Your task to perform on an android device: open a new tab in the chrome app Image 0: 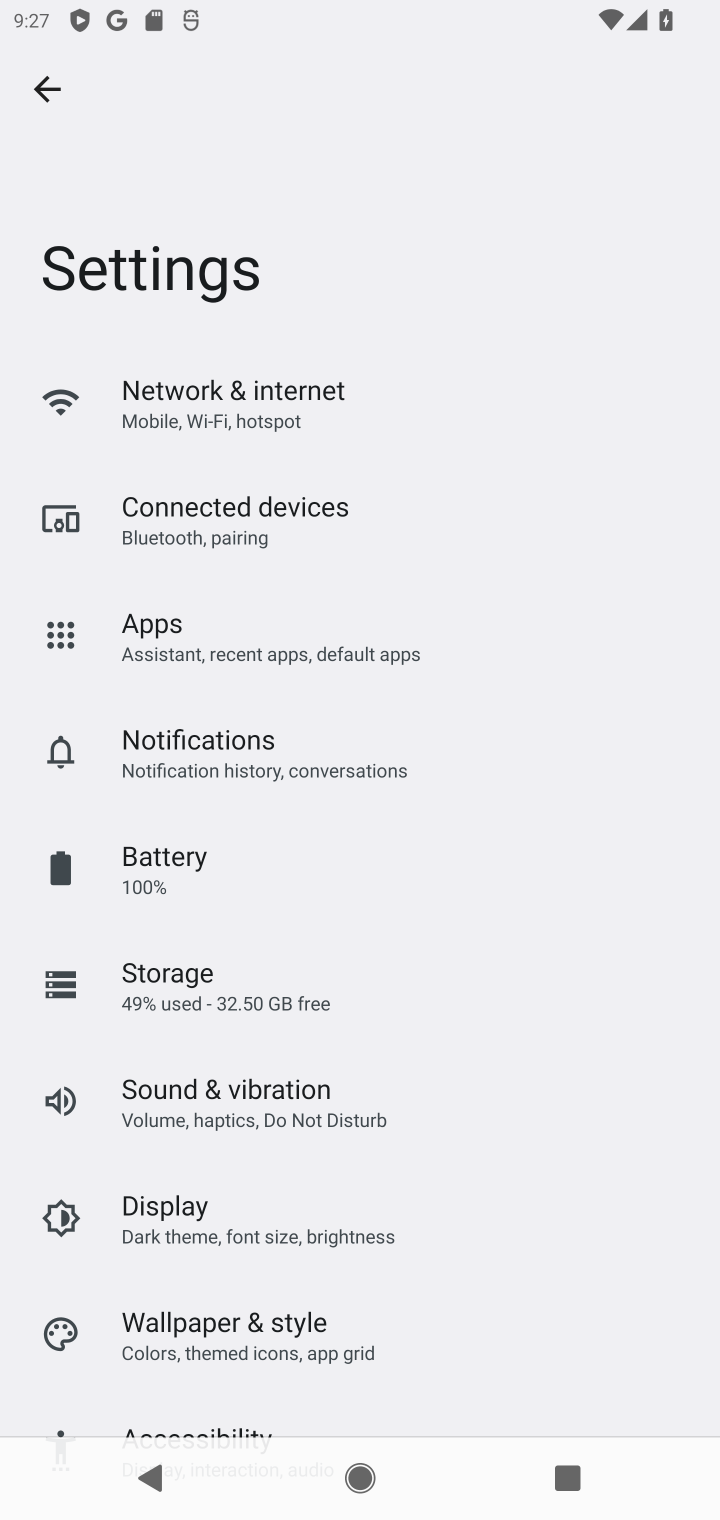
Step 0: press back button
Your task to perform on an android device: open a new tab in the chrome app Image 1: 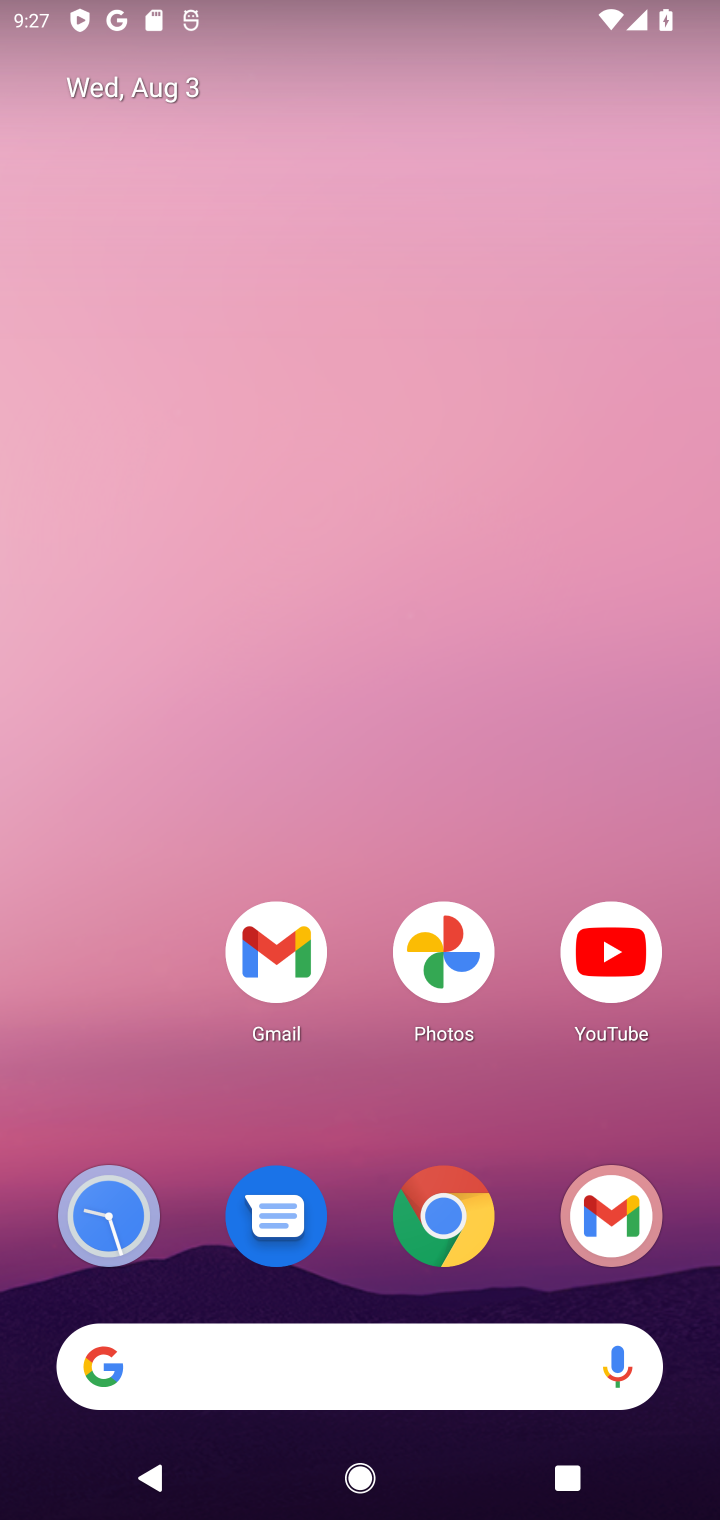
Step 1: click (432, 1240)
Your task to perform on an android device: open a new tab in the chrome app Image 2: 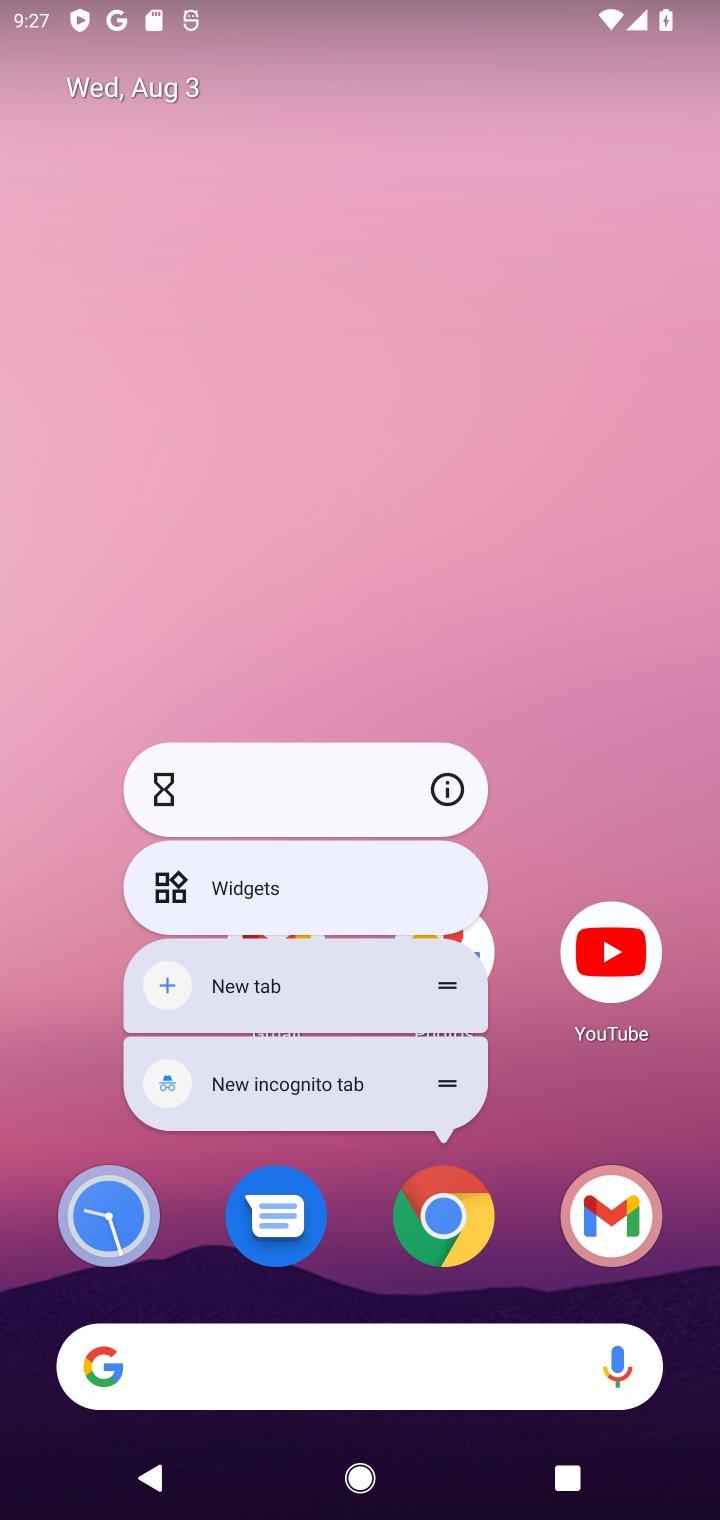
Step 2: click (439, 1209)
Your task to perform on an android device: open a new tab in the chrome app Image 3: 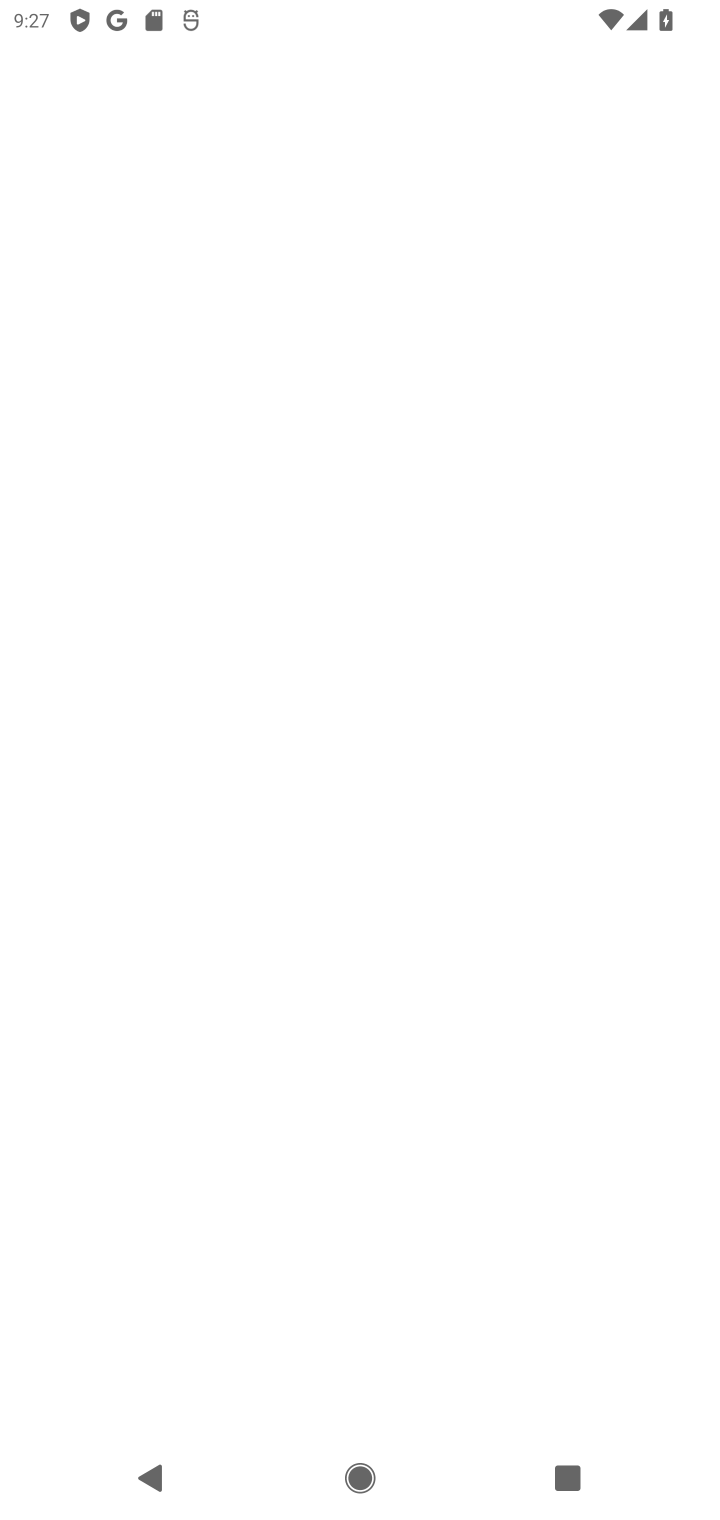
Step 3: click (450, 1218)
Your task to perform on an android device: open a new tab in the chrome app Image 4: 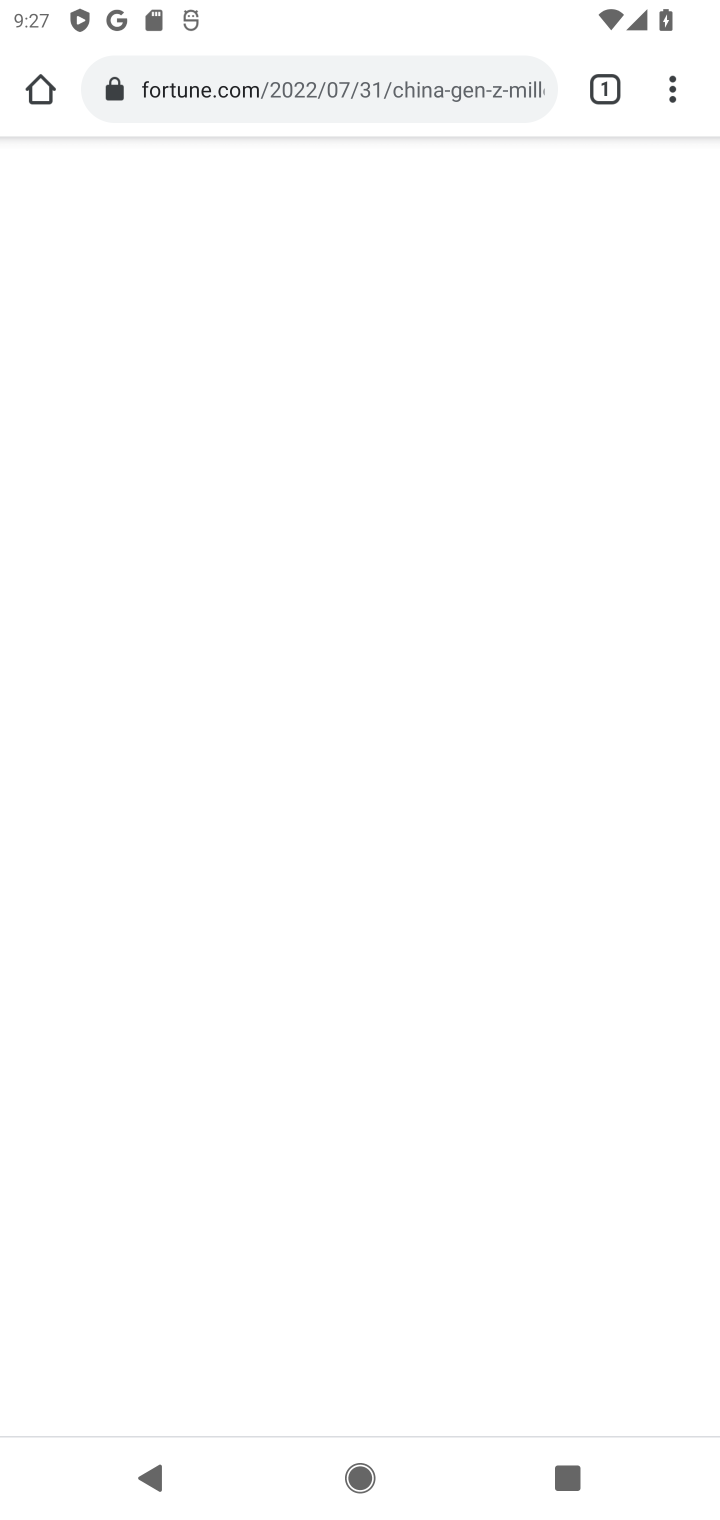
Step 4: click (605, 101)
Your task to perform on an android device: open a new tab in the chrome app Image 5: 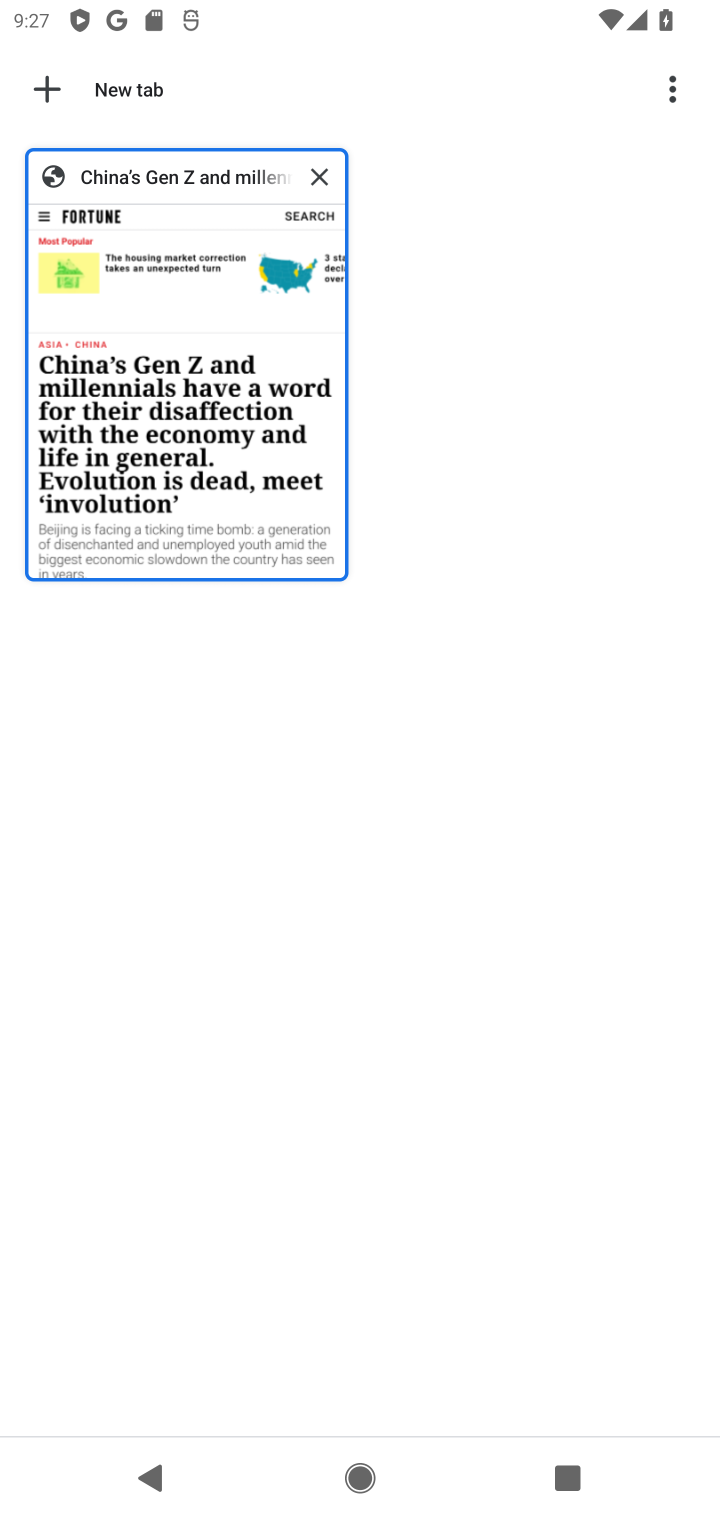
Step 5: click (46, 77)
Your task to perform on an android device: open a new tab in the chrome app Image 6: 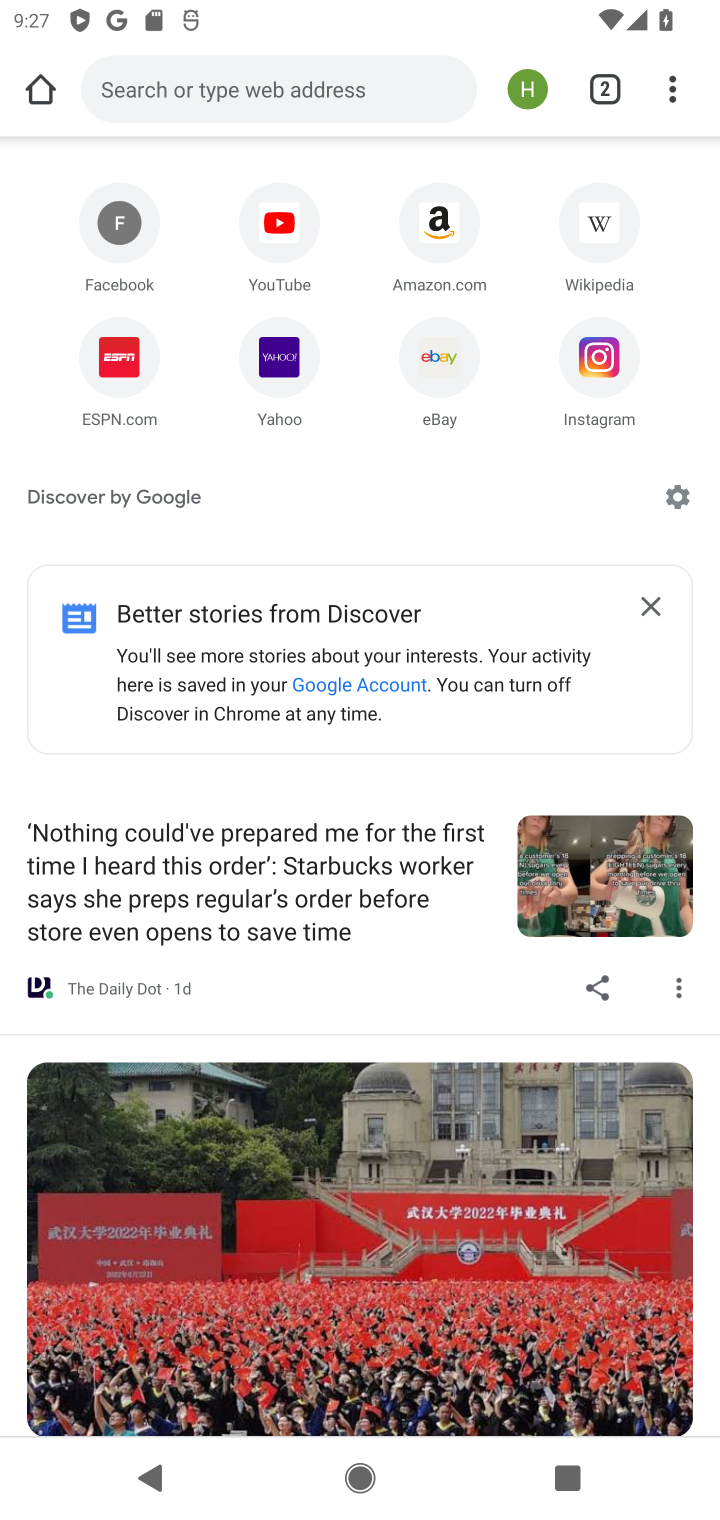
Step 6: task complete